Your task to perform on an android device: open sync settings in chrome Image 0: 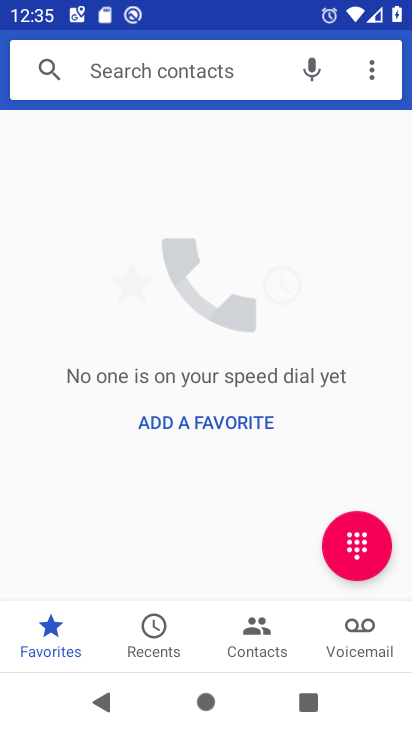
Step 0: press home button
Your task to perform on an android device: open sync settings in chrome Image 1: 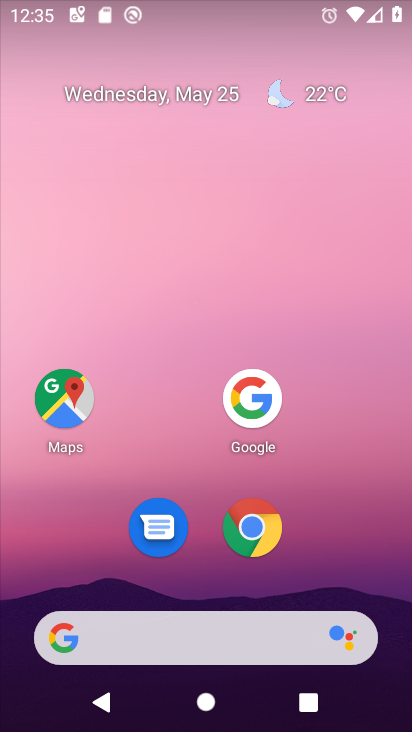
Step 1: drag from (123, 648) to (278, 223)
Your task to perform on an android device: open sync settings in chrome Image 2: 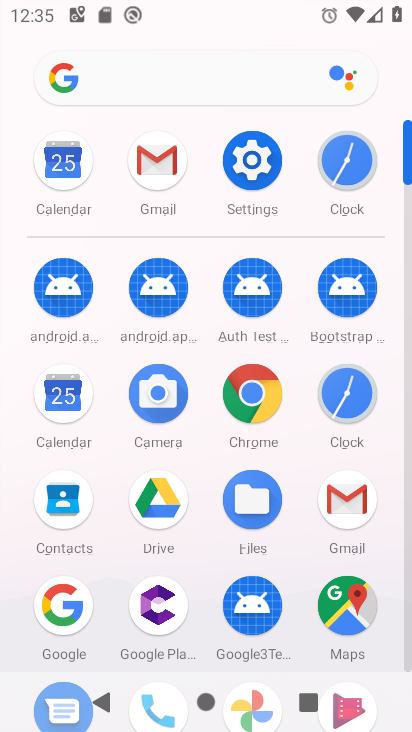
Step 2: click (254, 397)
Your task to perform on an android device: open sync settings in chrome Image 3: 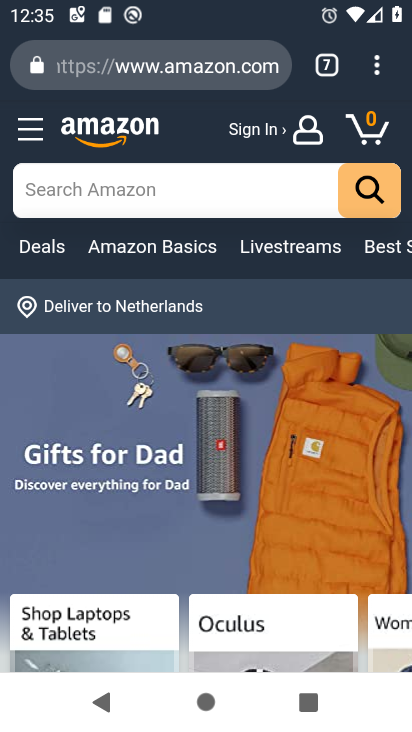
Step 3: drag from (380, 65) to (212, 581)
Your task to perform on an android device: open sync settings in chrome Image 4: 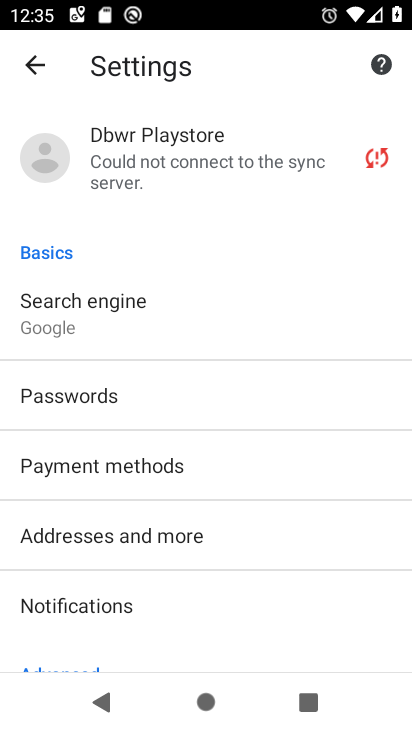
Step 4: click (158, 167)
Your task to perform on an android device: open sync settings in chrome Image 5: 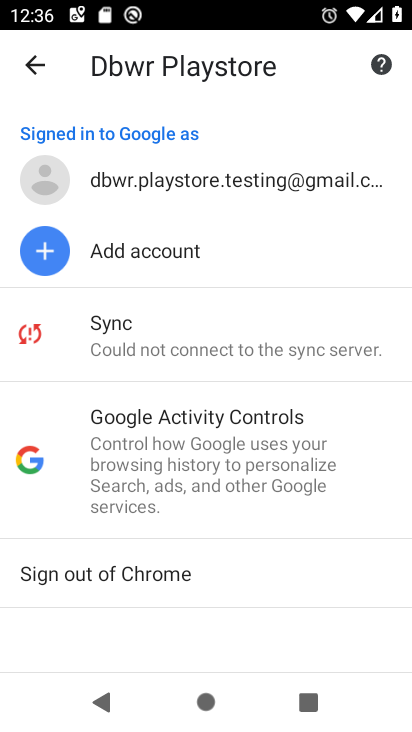
Step 5: click (183, 335)
Your task to perform on an android device: open sync settings in chrome Image 6: 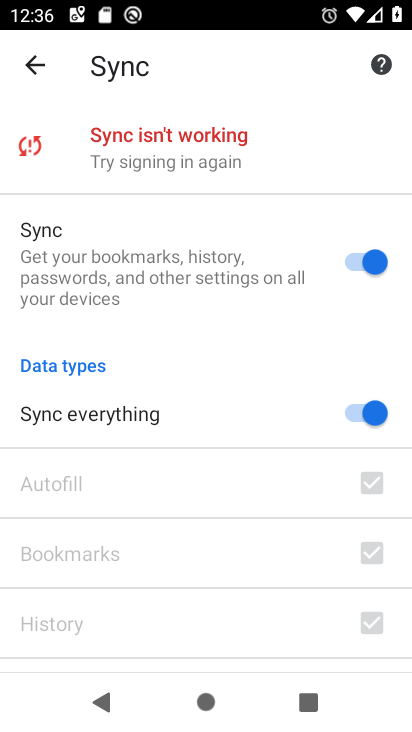
Step 6: task complete